Your task to perform on an android device: turn on showing notifications on the lock screen Image 0: 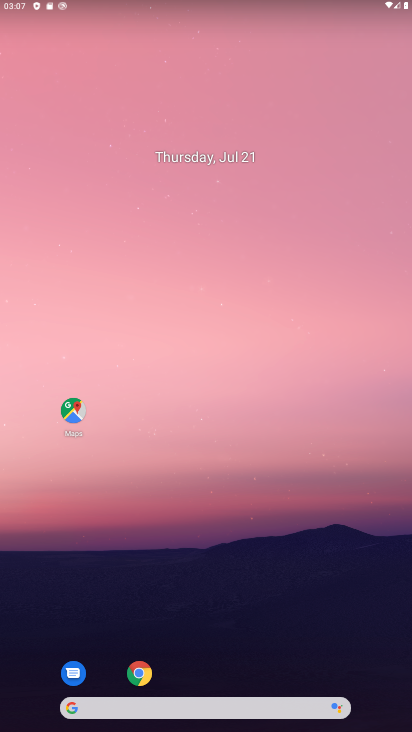
Step 0: drag from (255, 585) to (246, 102)
Your task to perform on an android device: turn on showing notifications on the lock screen Image 1: 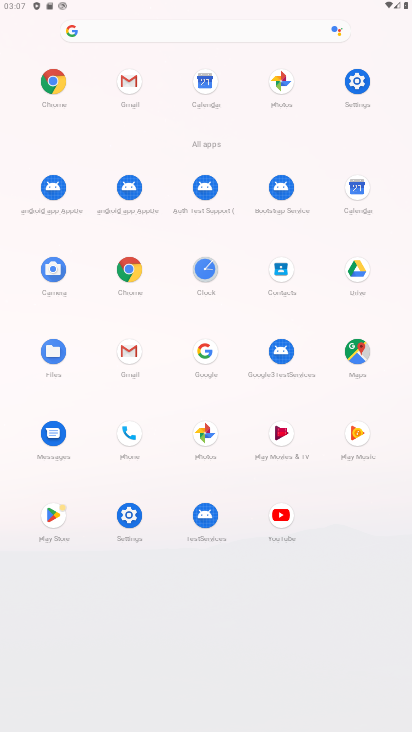
Step 1: click (126, 509)
Your task to perform on an android device: turn on showing notifications on the lock screen Image 2: 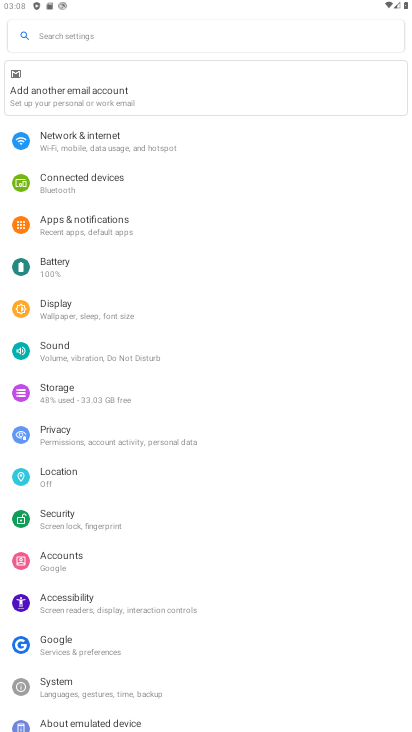
Step 2: click (120, 220)
Your task to perform on an android device: turn on showing notifications on the lock screen Image 3: 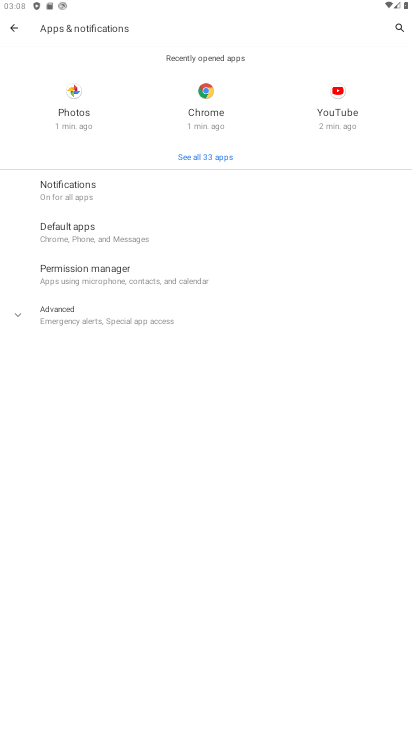
Step 3: click (98, 186)
Your task to perform on an android device: turn on showing notifications on the lock screen Image 4: 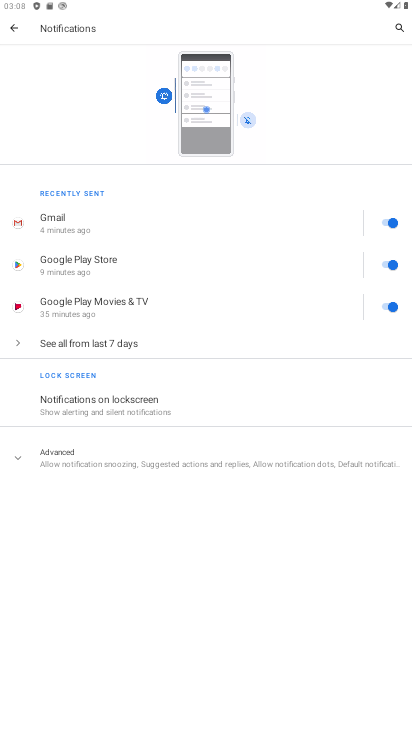
Step 4: click (114, 409)
Your task to perform on an android device: turn on showing notifications on the lock screen Image 5: 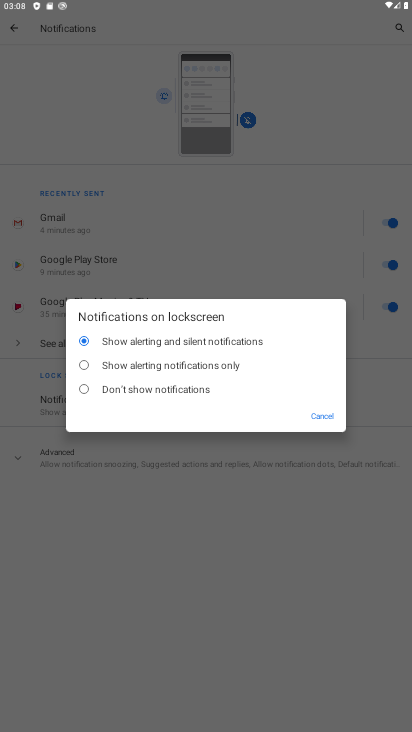
Step 5: click (140, 369)
Your task to perform on an android device: turn on showing notifications on the lock screen Image 6: 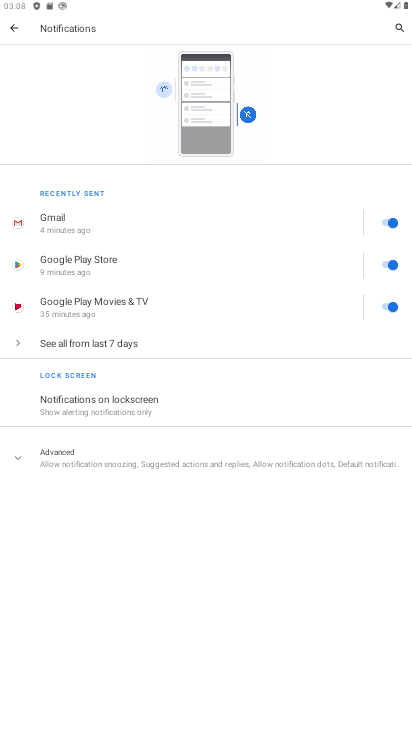
Step 6: task complete